Your task to perform on an android device: View the shopping cart on ebay.com. Add apple airpods pro to the cart on ebay.com Image 0: 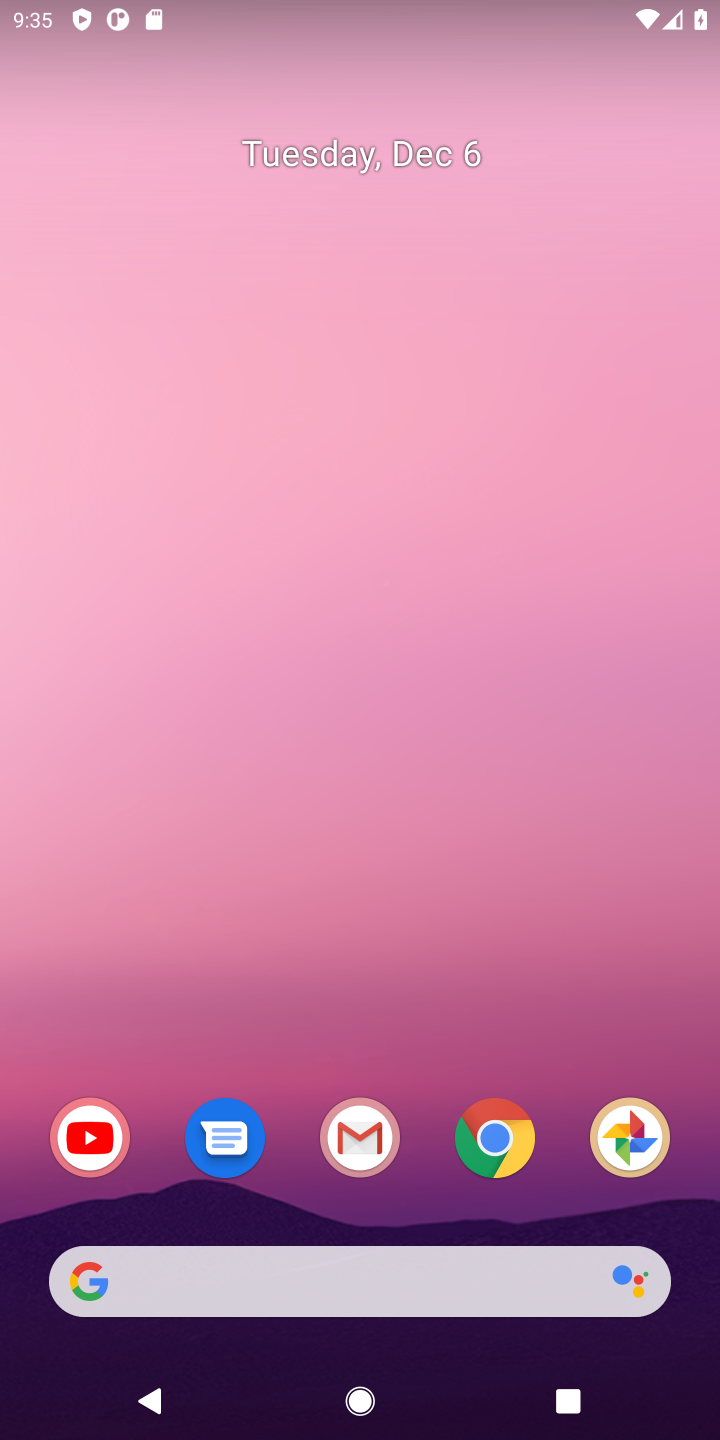
Step 0: click (488, 1143)
Your task to perform on an android device: View the shopping cart on ebay.com. Add apple airpods pro to the cart on ebay.com Image 1: 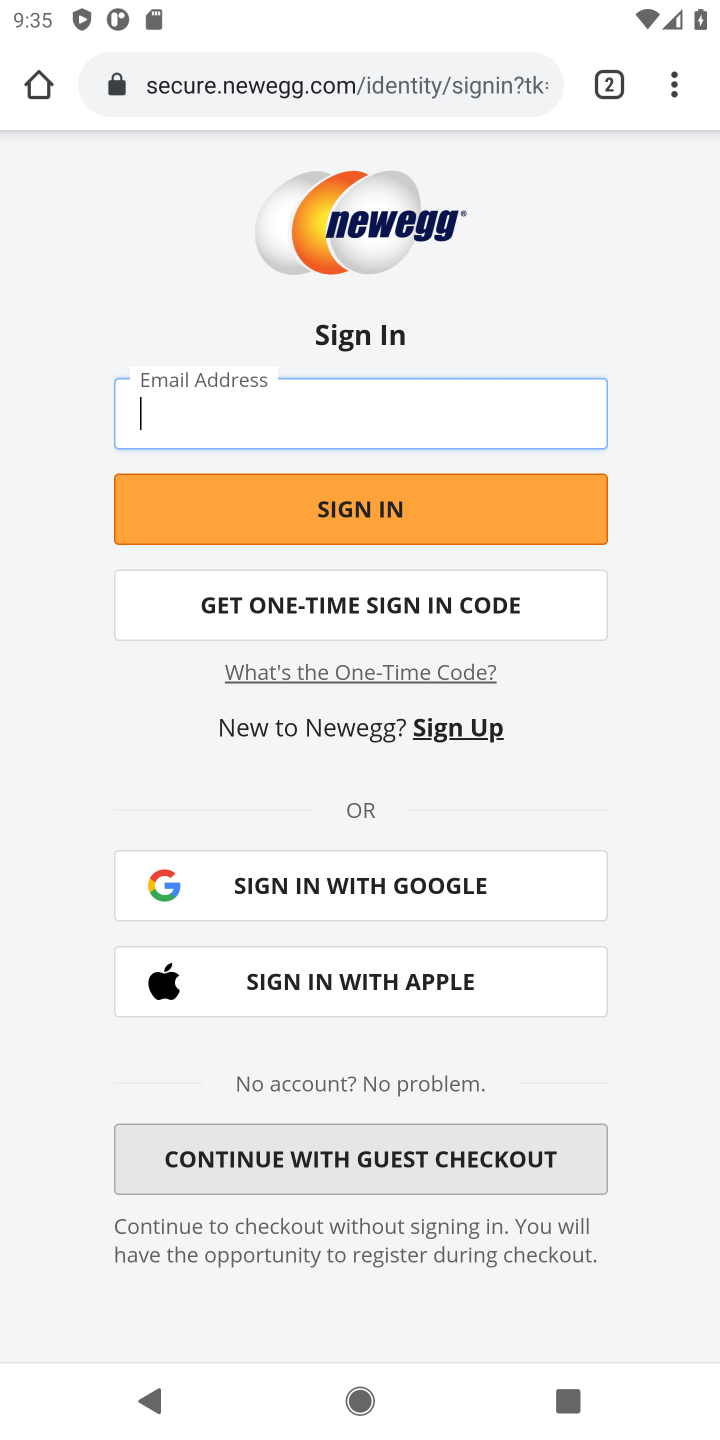
Step 1: click (312, 86)
Your task to perform on an android device: View the shopping cart on ebay.com. Add apple airpods pro to the cart on ebay.com Image 2: 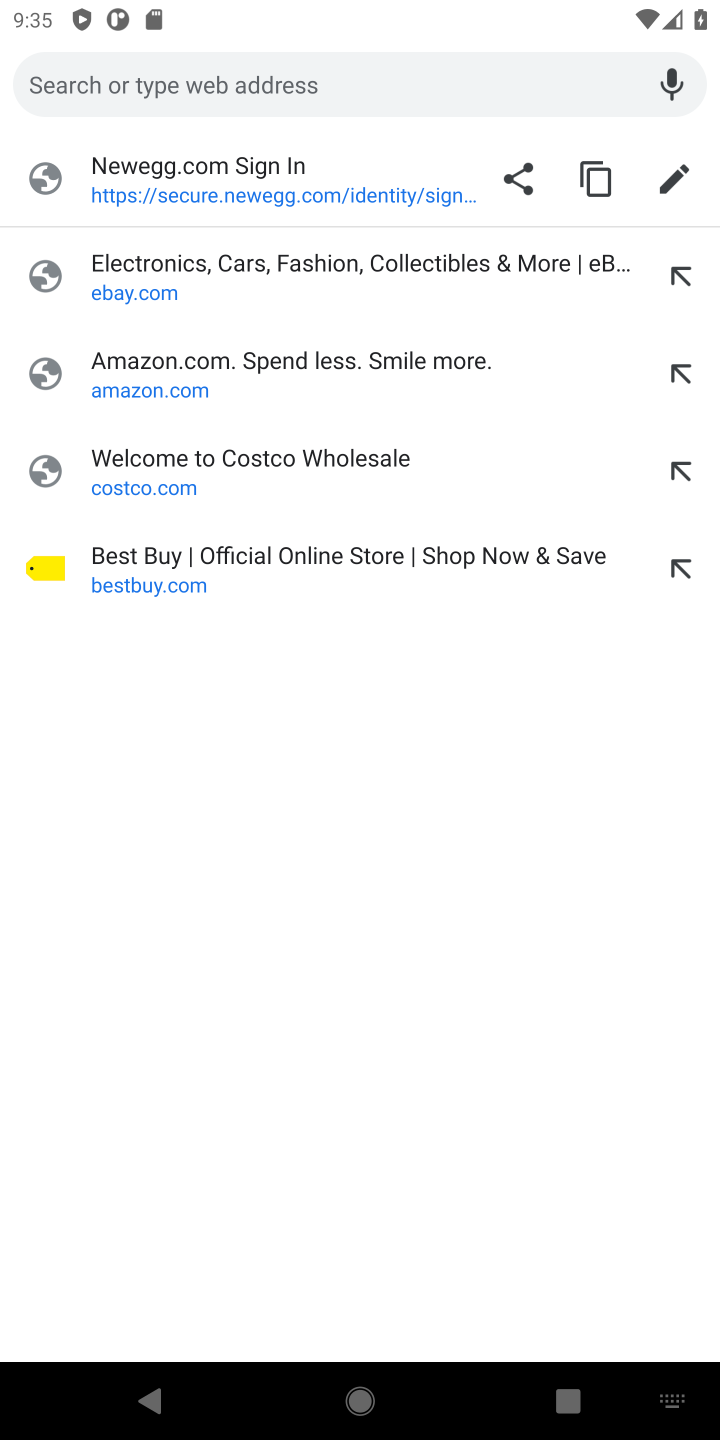
Step 2: click (172, 294)
Your task to perform on an android device: View the shopping cart on ebay.com. Add apple airpods pro to the cart on ebay.com Image 3: 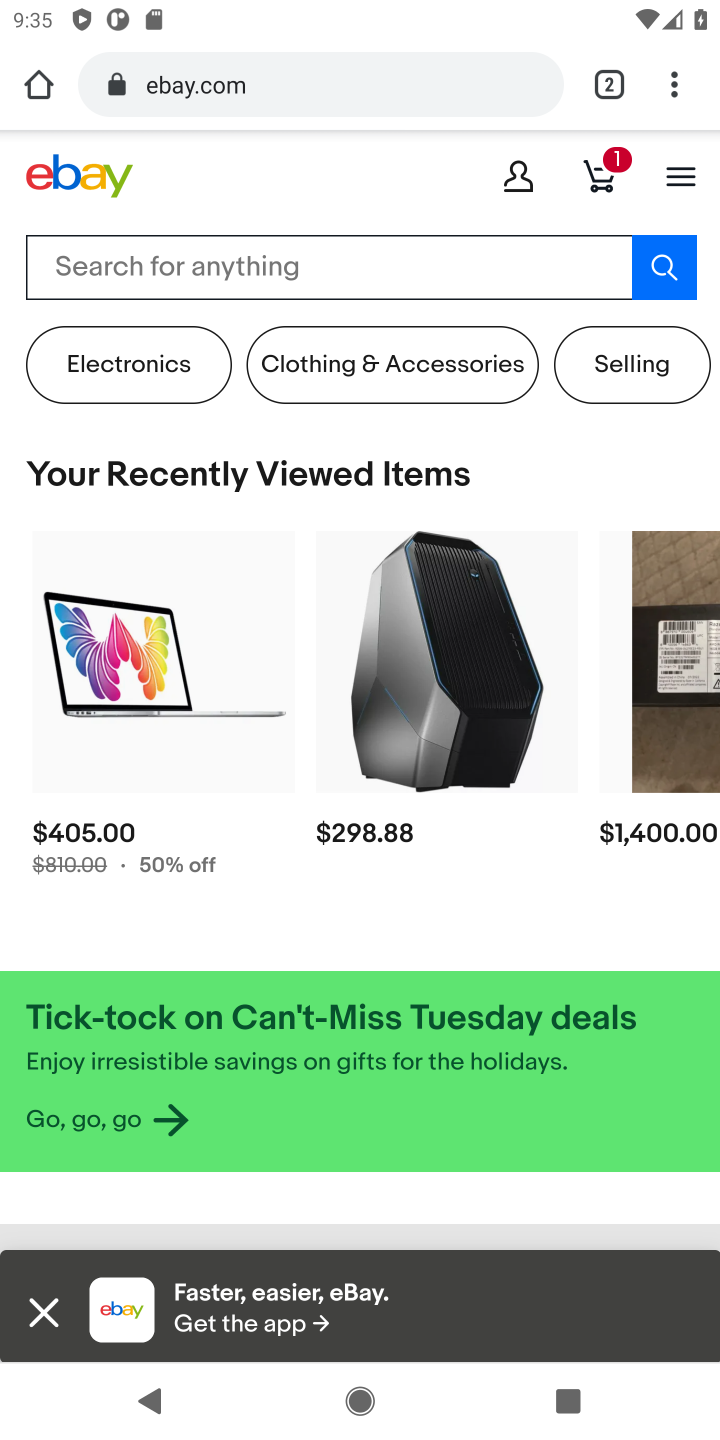
Step 3: click (603, 185)
Your task to perform on an android device: View the shopping cart on ebay.com. Add apple airpods pro to the cart on ebay.com Image 4: 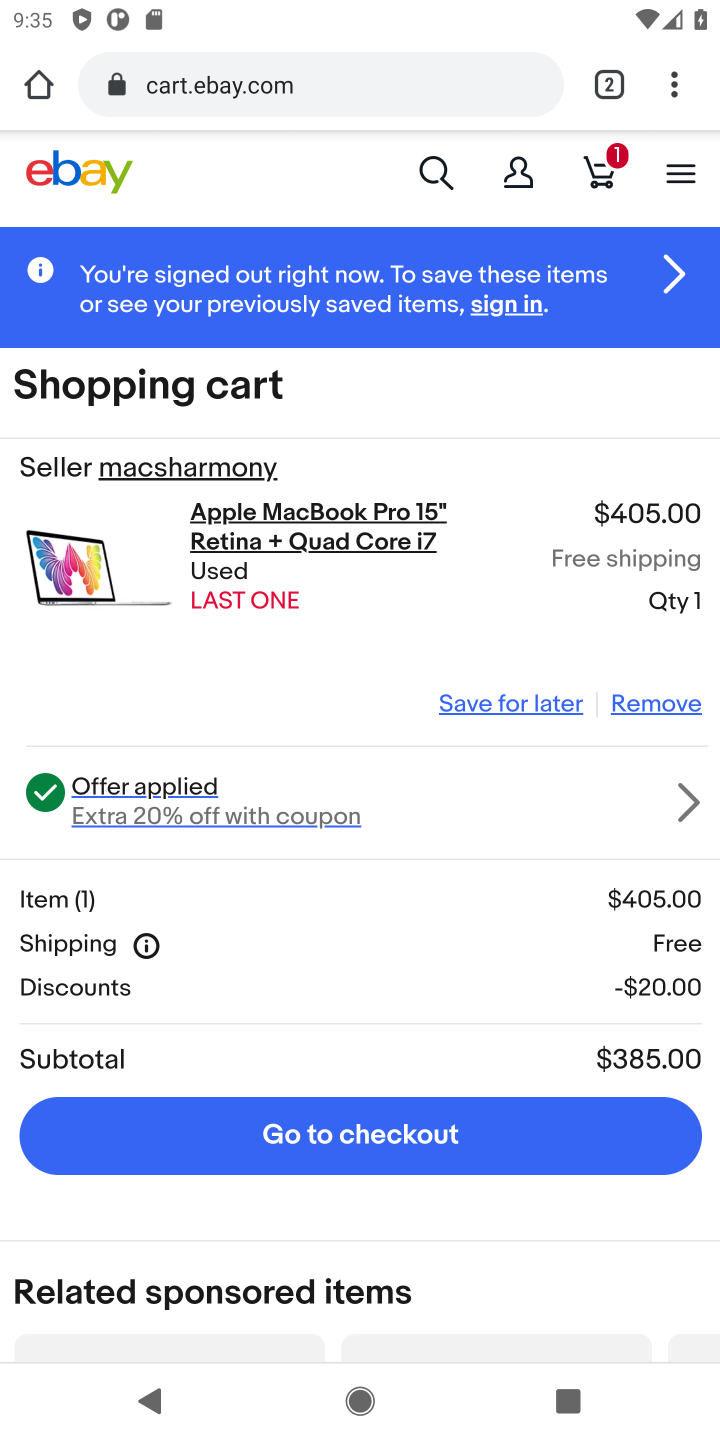
Step 4: click (437, 182)
Your task to perform on an android device: View the shopping cart on ebay.com. Add apple airpods pro to the cart on ebay.com Image 5: 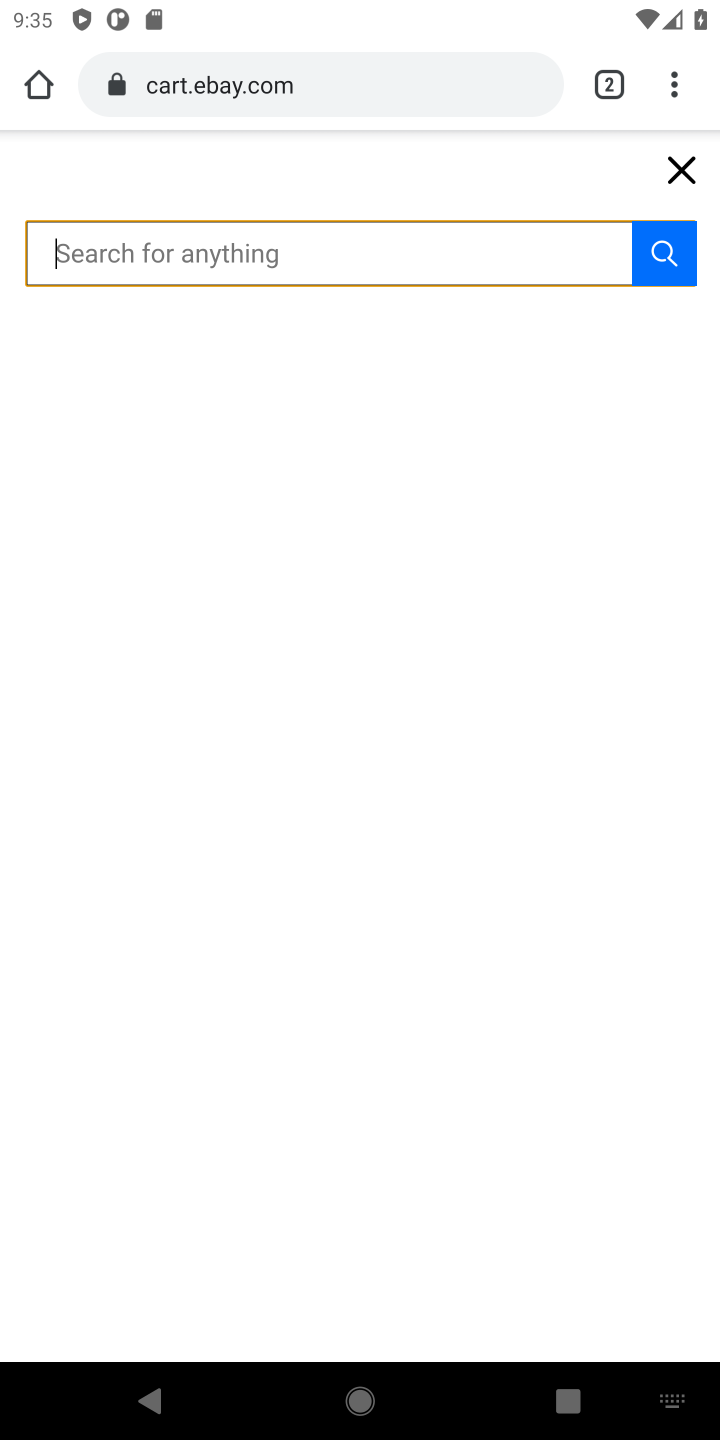
Step 5: type "apple airpods pro"
Your task to perform on an android device: View the shopping cart on ebay.com. Add apple airpods pro to the cart on ebay.com Image 6: 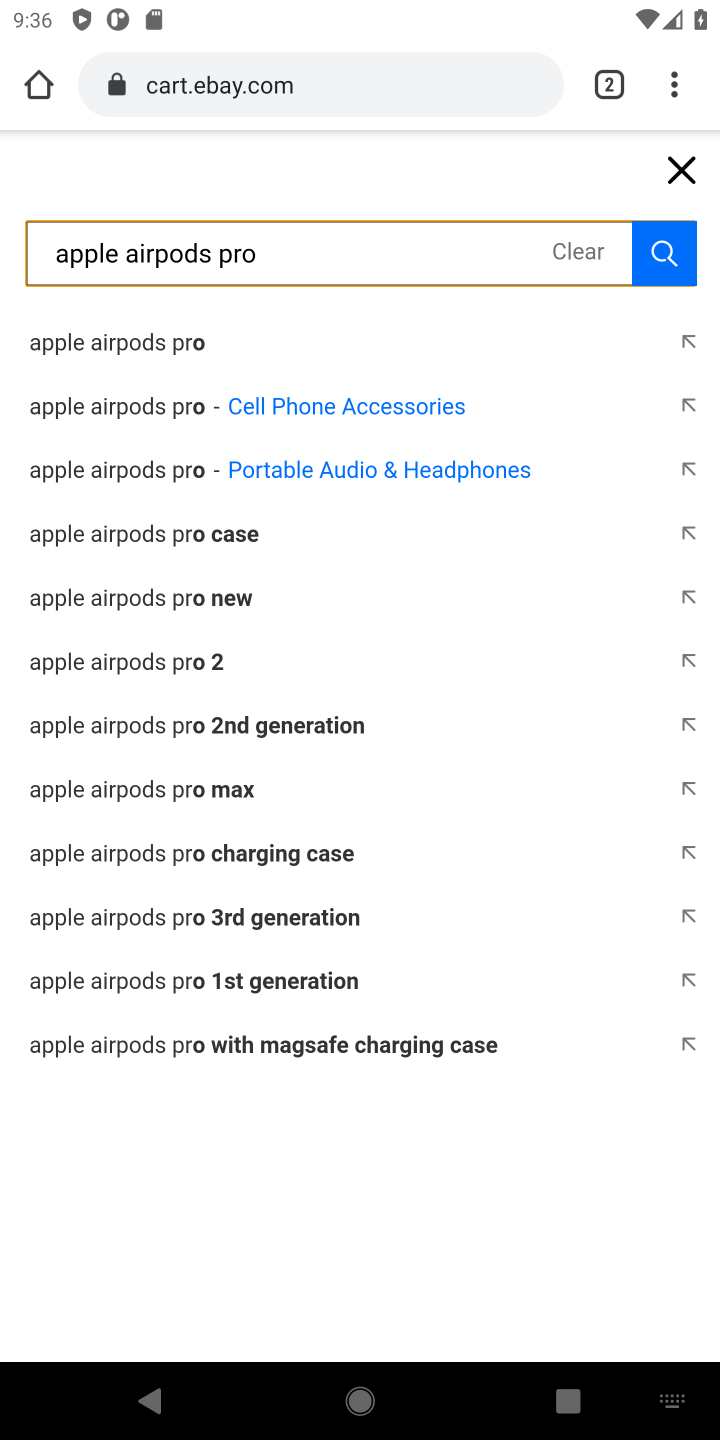
Step 6: click (171, 348)
Your task to perform on an android device: View the shopping cart on ebay.com. Add apple airpods pro to the cart on ebay.com Image 7: 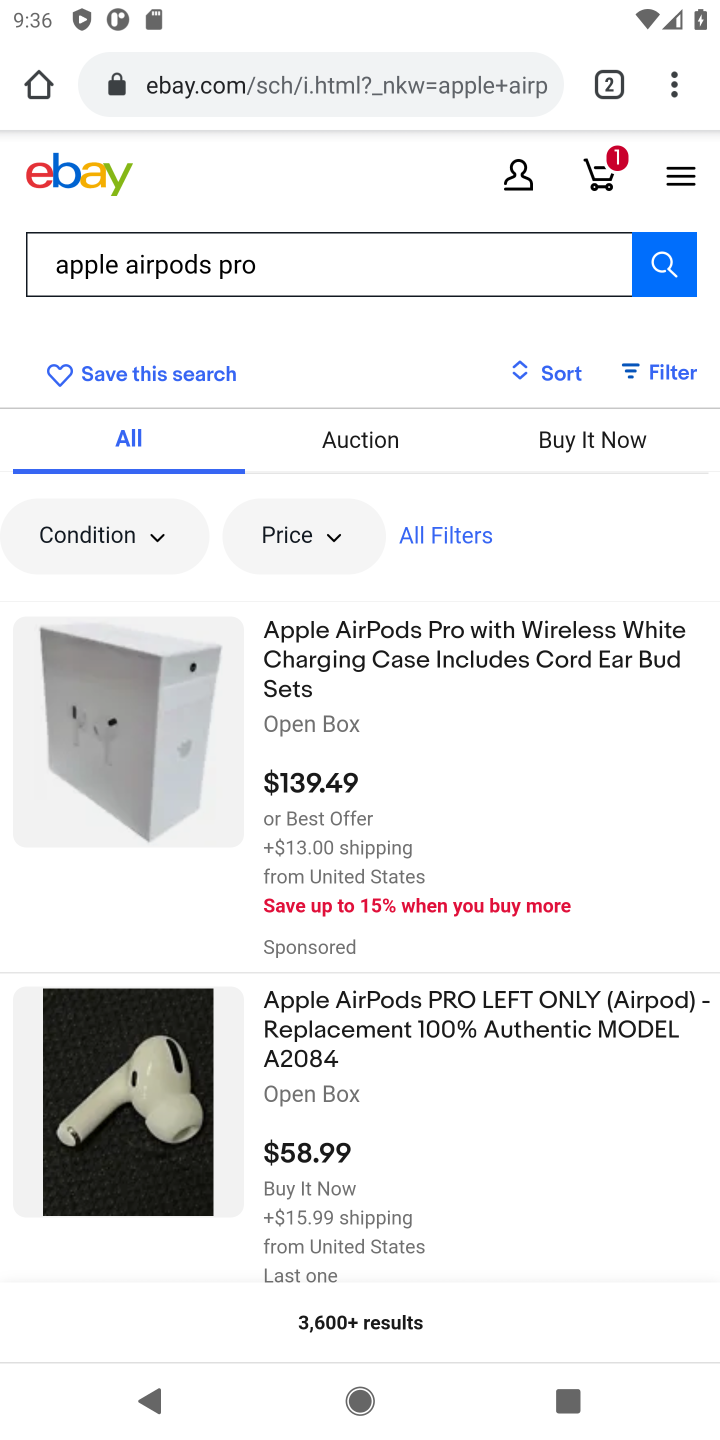
Step 7: click (314, 667)
Your task to perform on an android device: View the shopping cart on ebay.com. Add apple airpods pro to the cart on ebay.com Image 8: 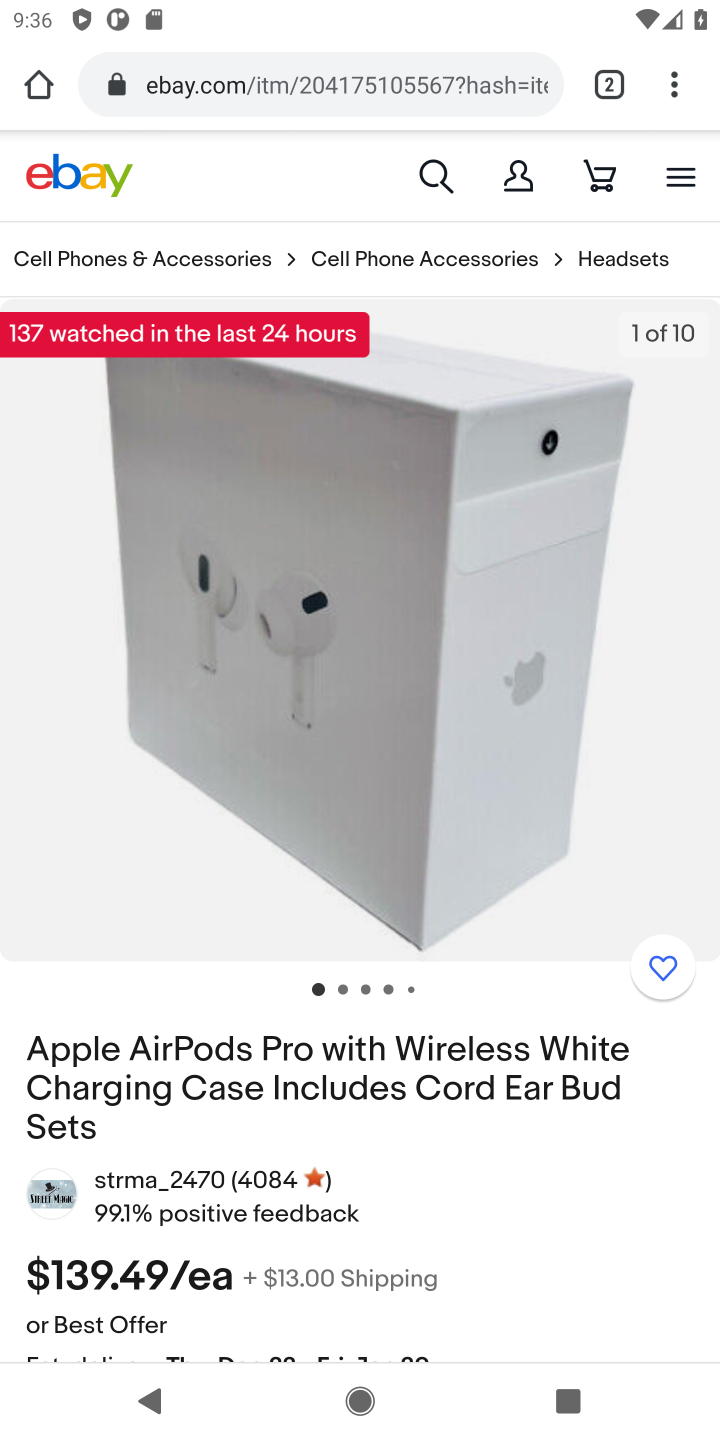
Step 8: drag from (406, 1170) to (370, 566)
Your task to perform on an android device: View the shopping cart on ebay.com. Add apple airpods pro to the cart on ebay.com Image 9: 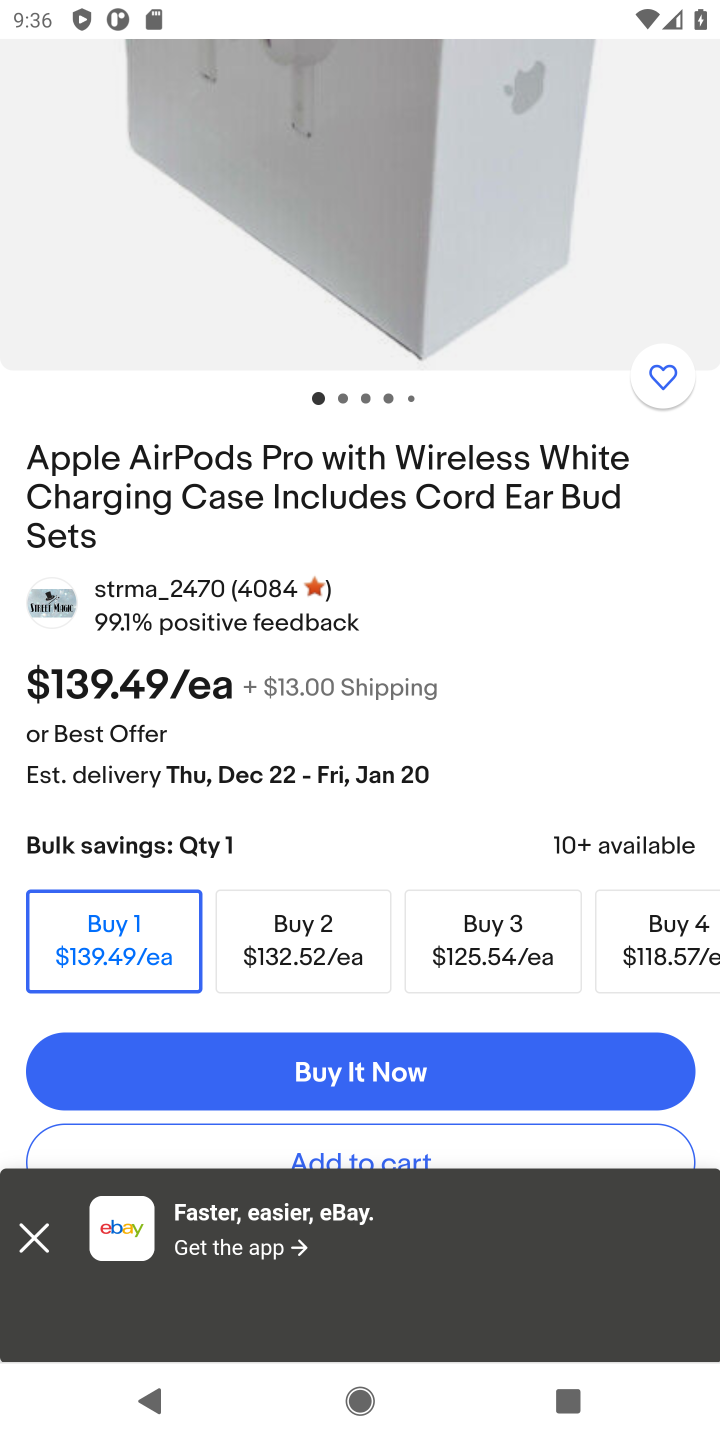
Step 9: drag from (367, 988) to (408, 678)
Your task to perform on an android device: View the shopping cart on ebay.com. Add apple airpods pro to the cart on ebay.com Image 10: 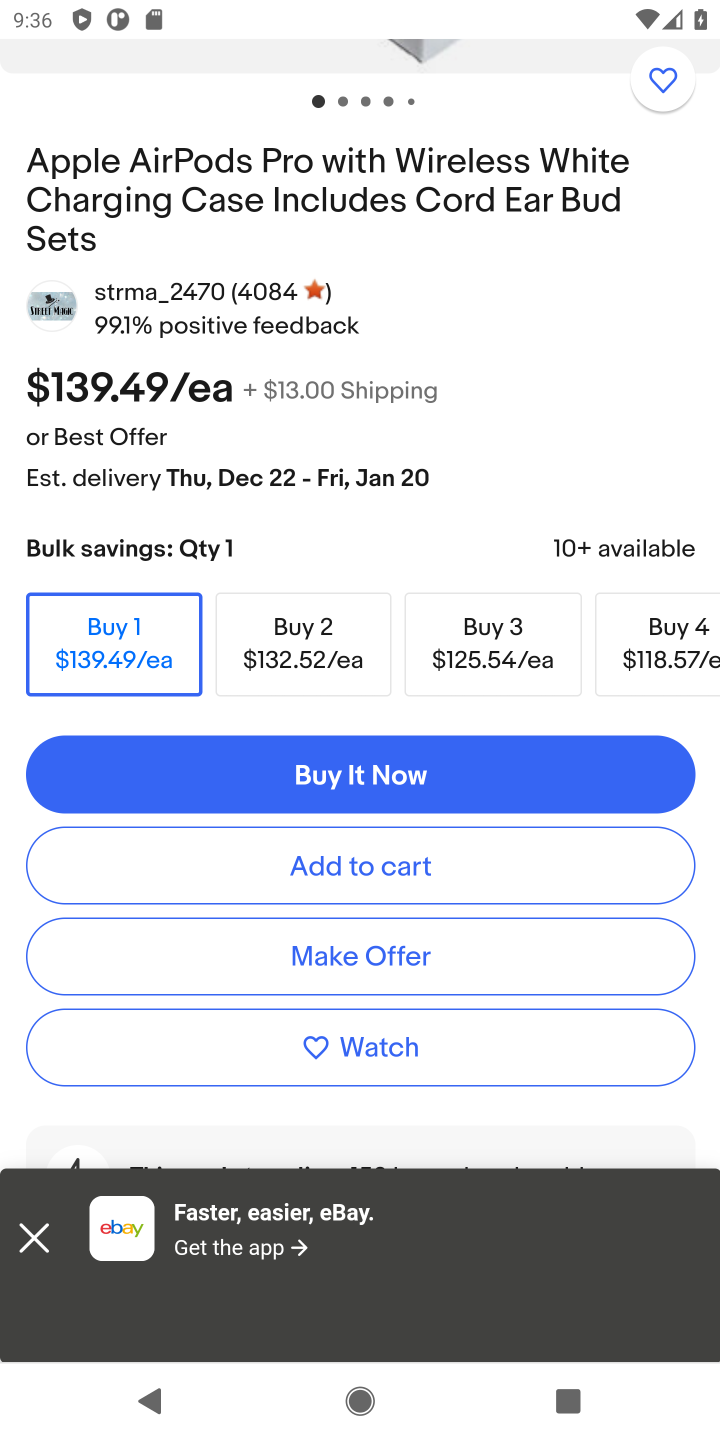
Step 10: click (377, 857)
Your task to perform on an android device: View the shopping cart on ebay.com. Add apple airpods pro to the cart on ebay.com Image 11: 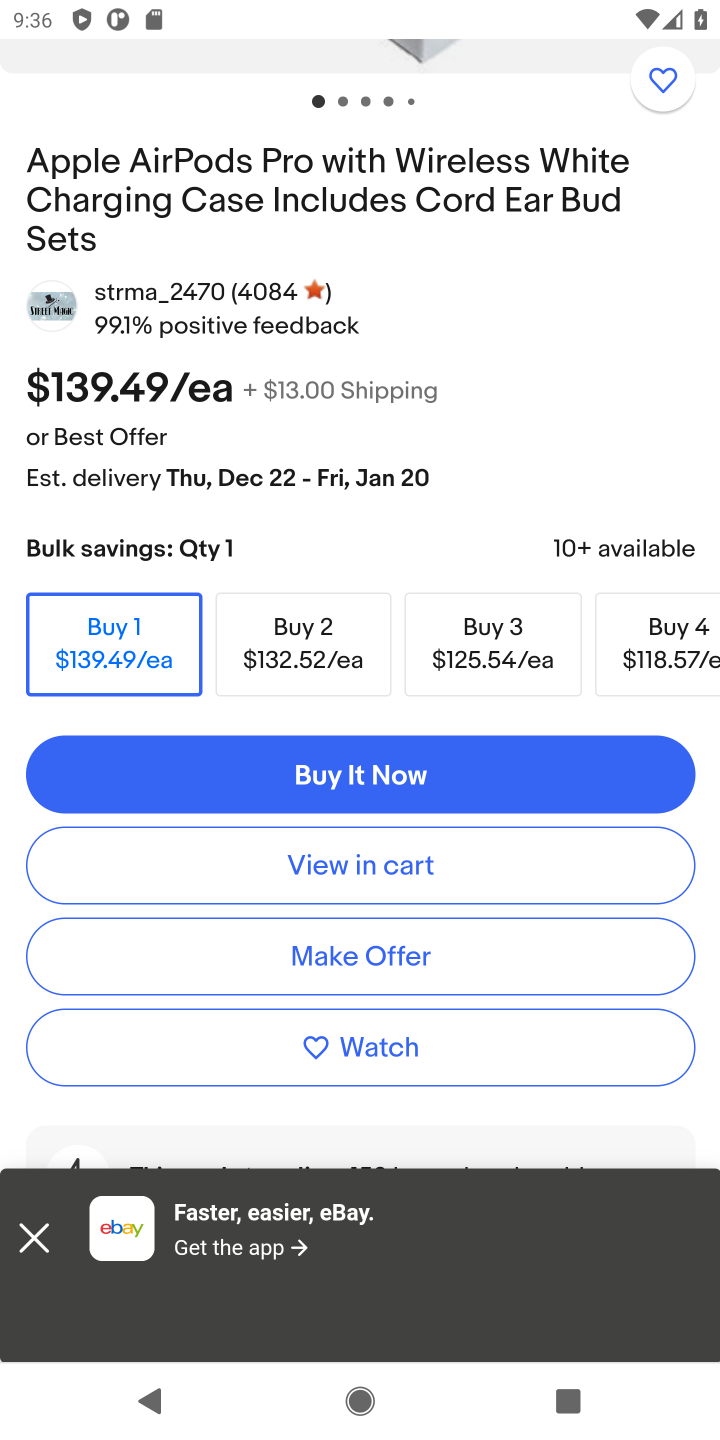
Step 11: task complete